Your task to perform on an android device: turn pop-ups on in chrome Image 0: 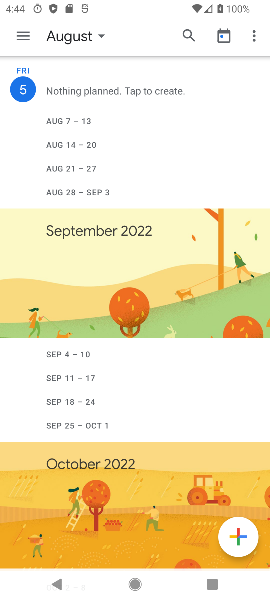
Step 0: press back button
Your task to perform on an android device: turn pop-ups on in chrome Image 1: 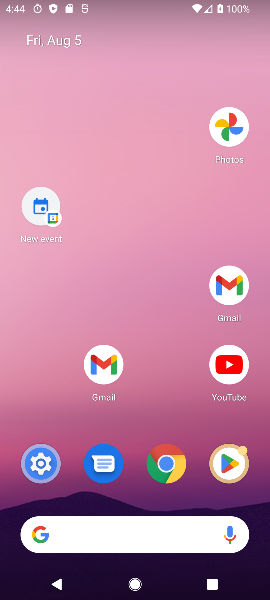
Step 1: drag from (199, 465) to (183, 96)
Your task to perform on an android device: turn pop-ups on in chrome Image 2: 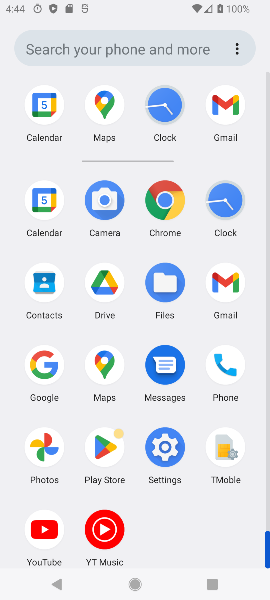
Step 2: drag from (190, 393) to (183, 119)
Your task to perform on an android device: turn pop-ups on in chrome Image 3: 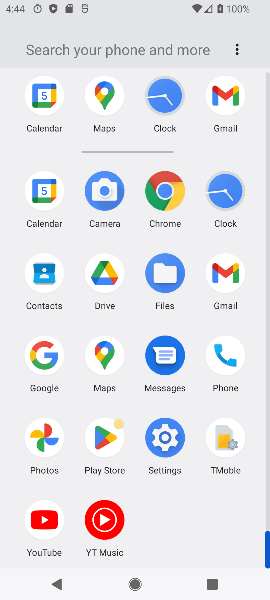
Step 3: click (164, 198)
Your task to perform on an android device: turn pop-ups on in chrome Image 4: 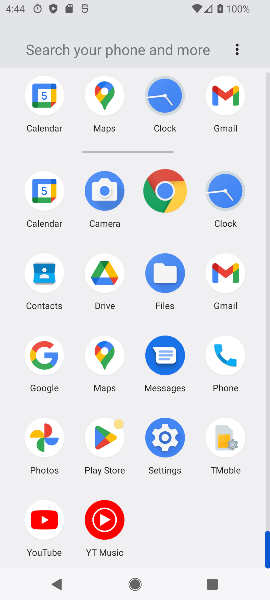
Step 4: click (164, 197)
Your task to perform on an android device: turn pop-ups on in chrome Image 5: 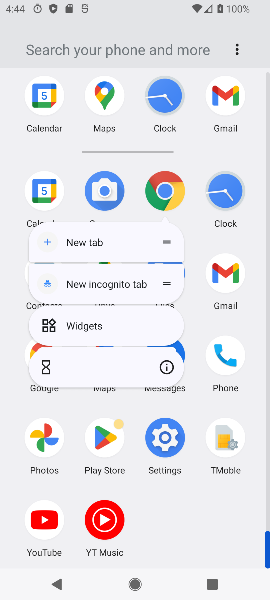
Step 5: click (165, 197)
Your task to perform on an android device: turn pop-ups on in chrome Image 6: 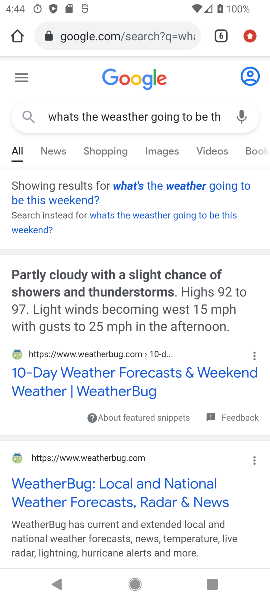
Step 6: drag from (249, 34) to (200, 444)
Your task to perform on an android device: turn pop-ups on in chrome Image 7: 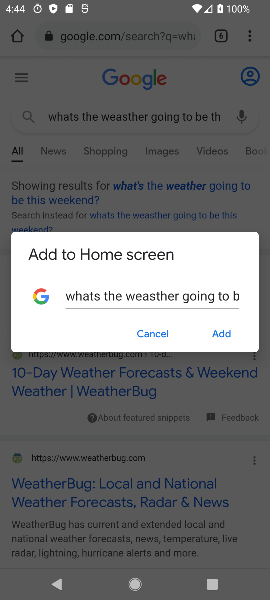
Step 7: click (148, 329)
Your task to perform on an android device: turn pop-ups on in chrome Image 8: 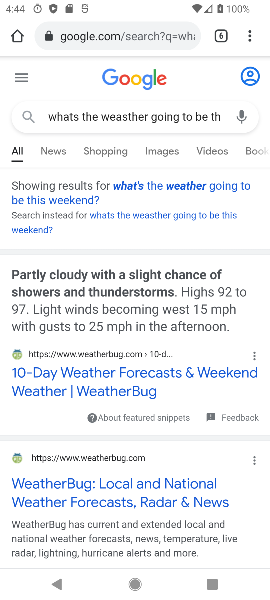
Step 8: drag from (252, 37) to (132, 517)
Your task to perform on an android device: turn pop-ups on in chrome Image 9: 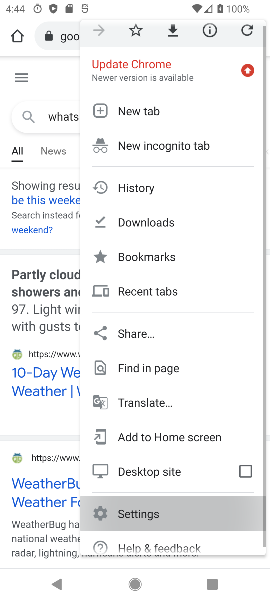
Step 9: click (132, 518)
Your task to perform on an android device: turn pop-ups on in chrome Image 10: 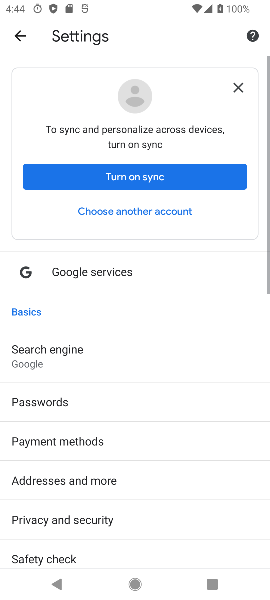
Step 10: drag from (106, 491) to (128, 202)
Your task to perform on an android device: turn pop-ups on in chrome Image 11: 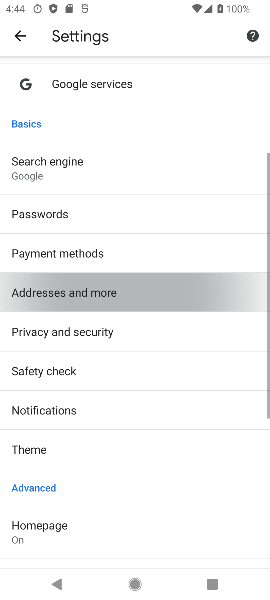
Step 11: drag from (138, 390) to (153, 194)
Your task to perform on an android device: turn pop-ups on in chrome Image 12: 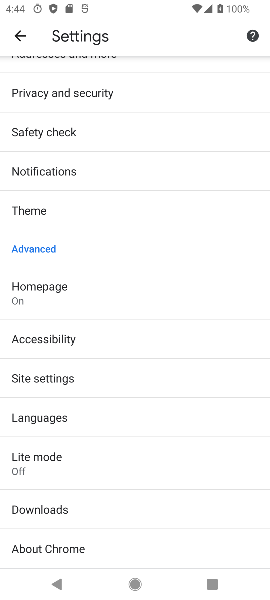
Step 12: click (36, 377)
Your task to perform on an android device: turn pop-ups on in chrome Image 13: 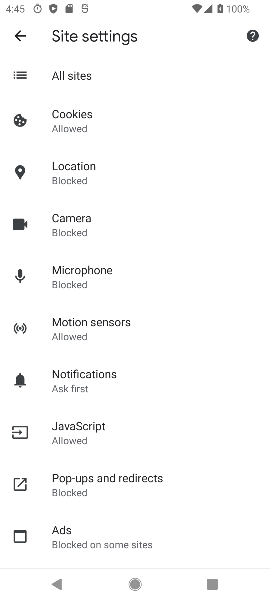
Step 13: click (70, 486)
Your task to perform on an android device: turn pop-ups on in chrome Image 14: 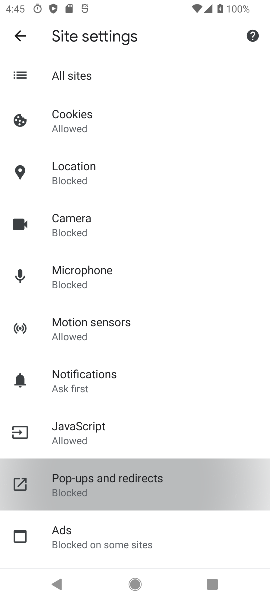
Step 14: click (71, 487)
Your task to perform on an android device: turn pop-ups on in chrome Image 15: 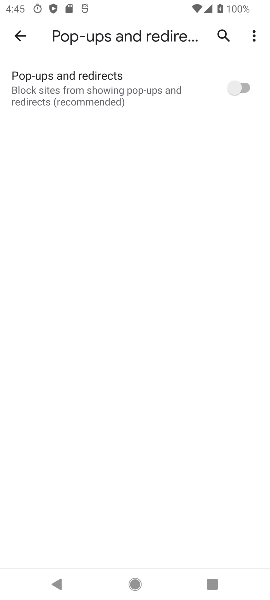
Step 15: click (236, 87)
Your task to perform on an android device: turn pop-ups on in chrome Image 16: 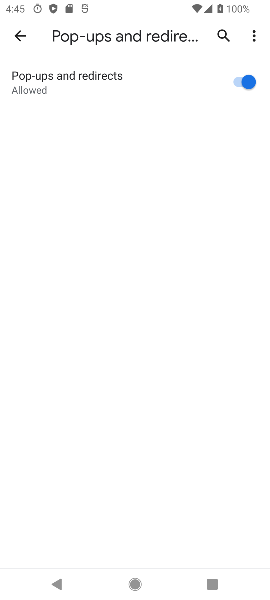
Step 16: task complete